Your task to perform on an android device: delete the emails in spam in the gmail app Image 0: 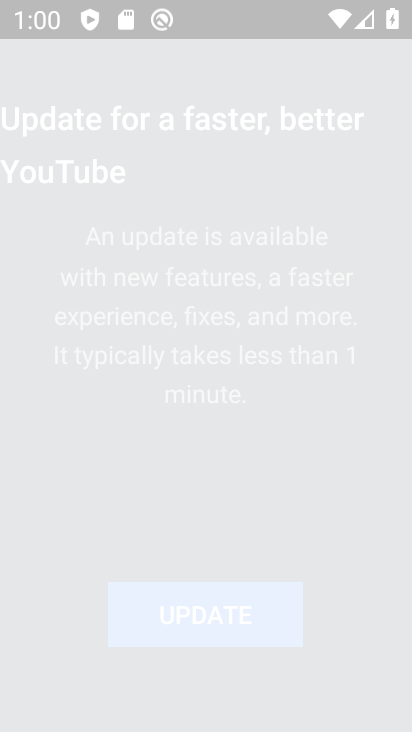
Step 0: drag from (196, 533) to (154, 80)
Your task to perform on an android device: delete the emails in spam in the gmail app Image 1: 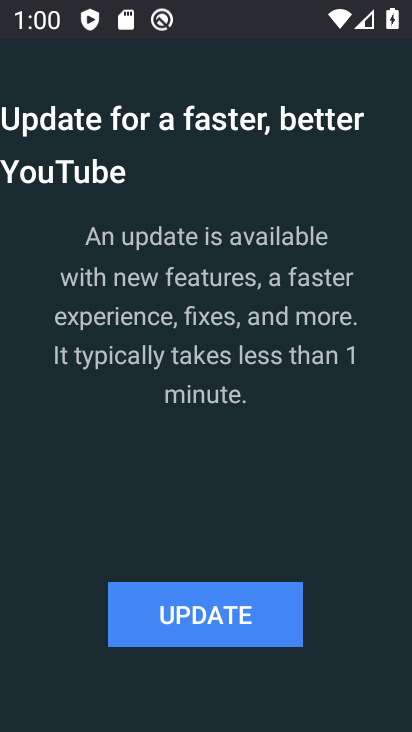
Step 1: press back button
Your task to perform on an android device: delete the emails in spam in the gmail app Image 2: 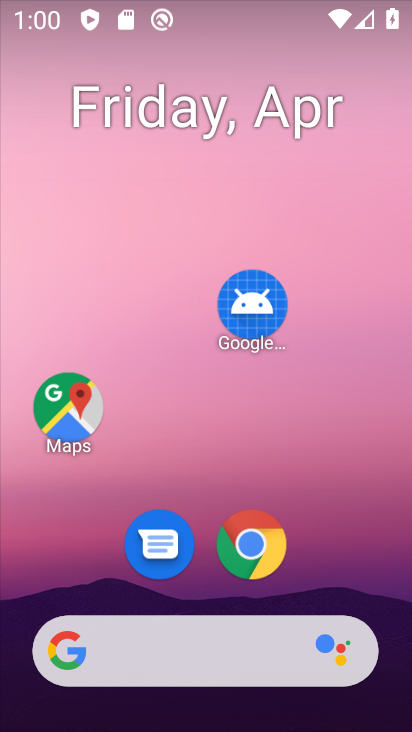
Step 2: drag from (138, 509) to (225, 90)
Your task to perform on an android device: delete the emails in spam in the gmail app Image 3: 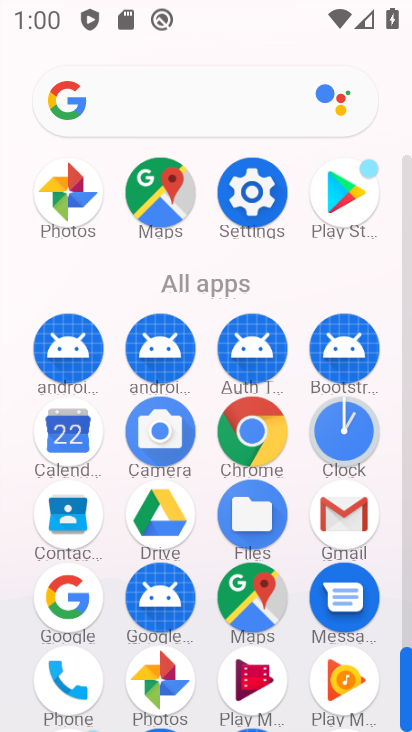
Step 3: click (348, 528)
Your task to perform on an android device: delete the emails in spam in the gmail app Image 4: 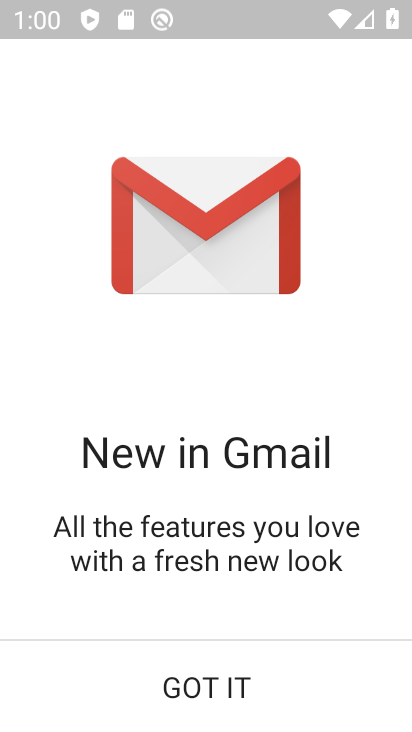
Step 4: click (252, 673)
Your task to perform on an android device: delete the emails in spam in the gmail app Image 5: 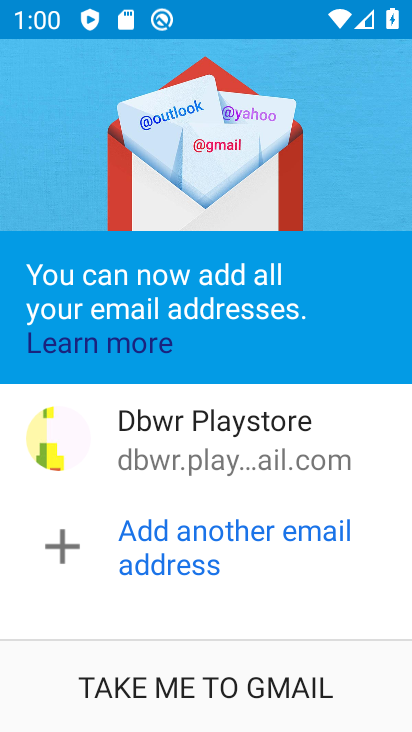
Step 5: click (249, 681)
Your task to perform on an android device: delete the emails in spam in the gmail app Image 6: 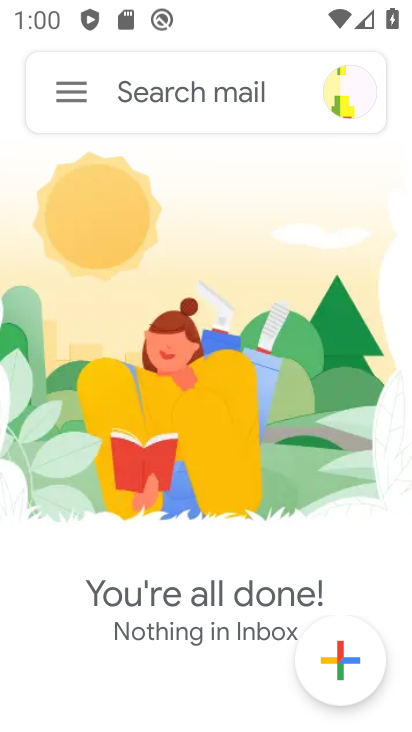
Step 6: click (88, 97)
Your task to perform on an android device: delete the emails in spam in the gmail app Image 7: 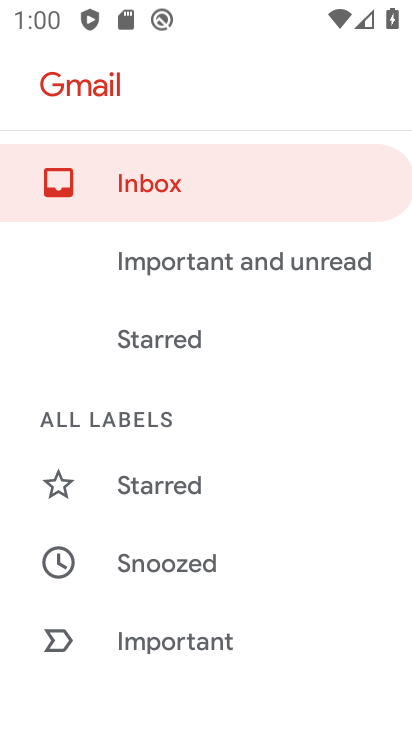
Step 7: drag from (162, 643) to (250, 206)
Your task to perform on an android device: delete the emails in spam in the gmail app Image 8: 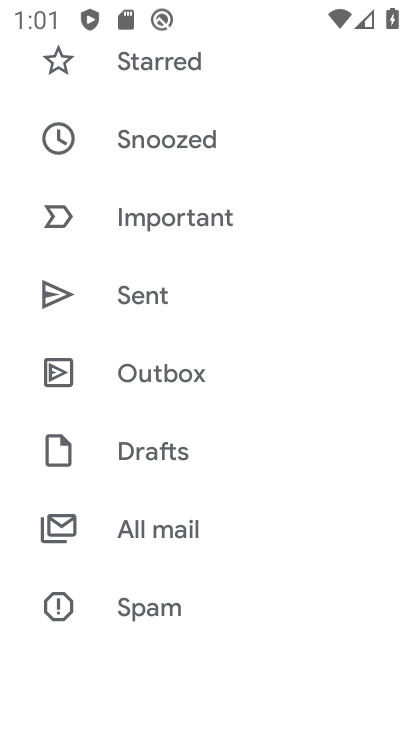
Step 8: click (182, 608)
Your task to perform on an android device: delete the emails in spam in the gmail app Image 9: 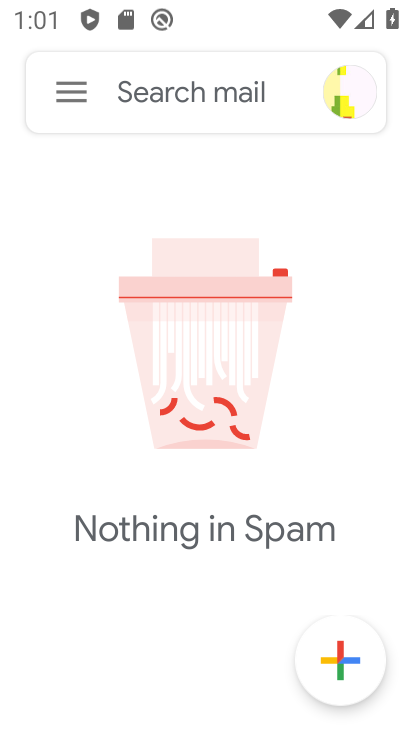
Step 9: task complete